Your task to perform on an android device: Add "bose soundlink" to the cart on newegg.com, then select checkout. Image 0: 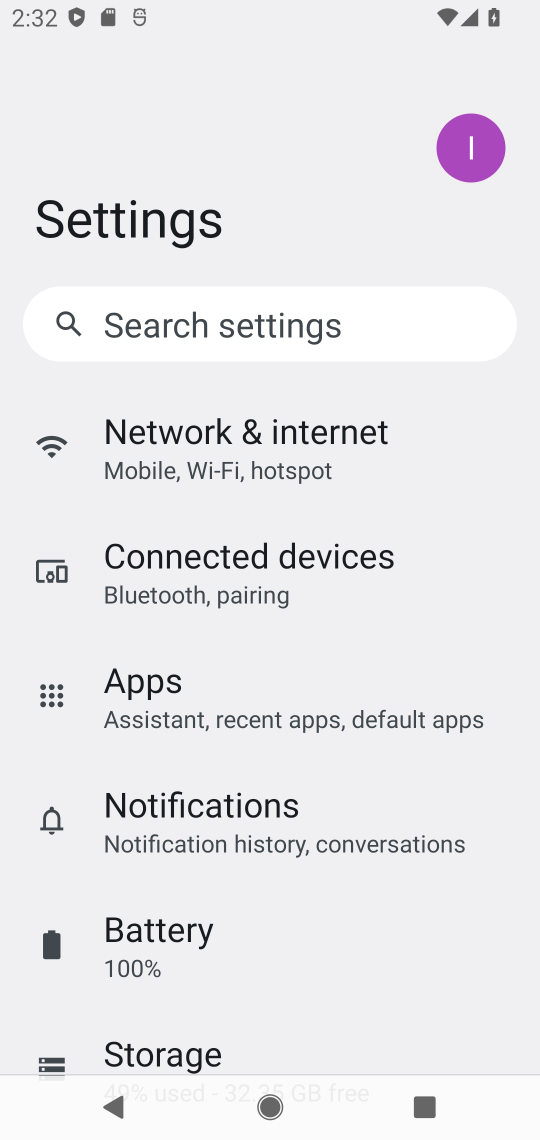
Step 0: press home button
Your task to perform on an android device: Add "bose soundlink" to the cart on newegg.com, then select checkout. Image 1: 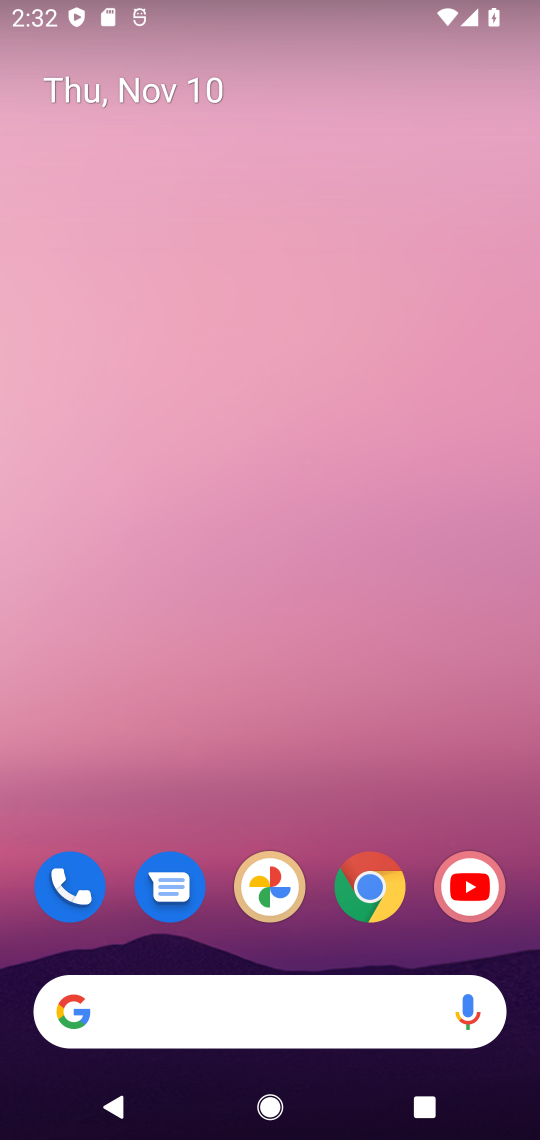
Step 1: drag from (309, 939) to (301, 94)
Your task to perform on an android device: Add "bose soundlink" to the cart on newegg.com, then select checkout. Image 2: 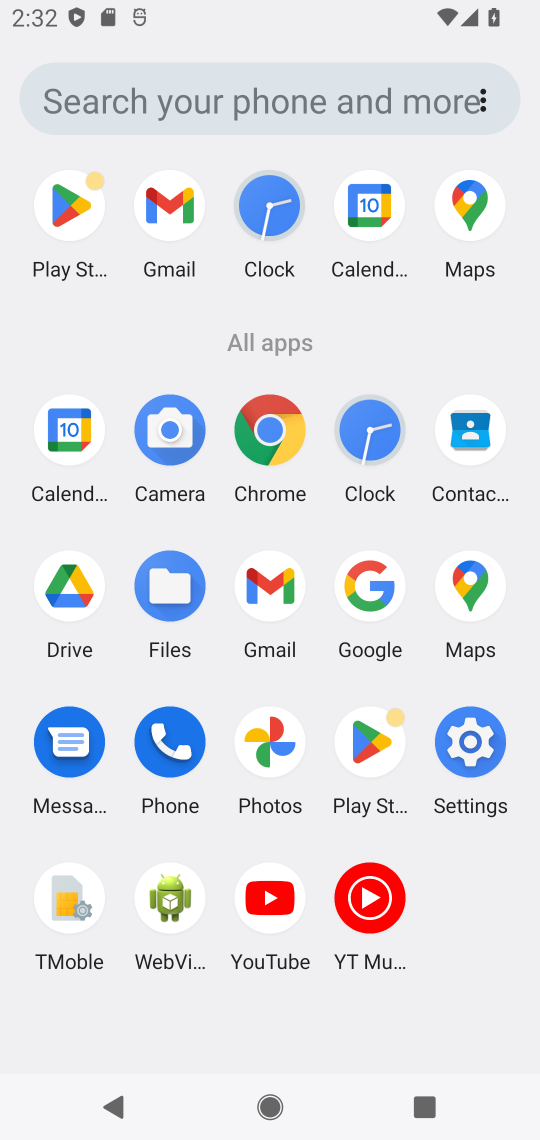
Step 2: click (273, 424)
Your task to perform on an android device: Add "bose soundlink" to the cart on newegg.com, then select checkout. Image 3: 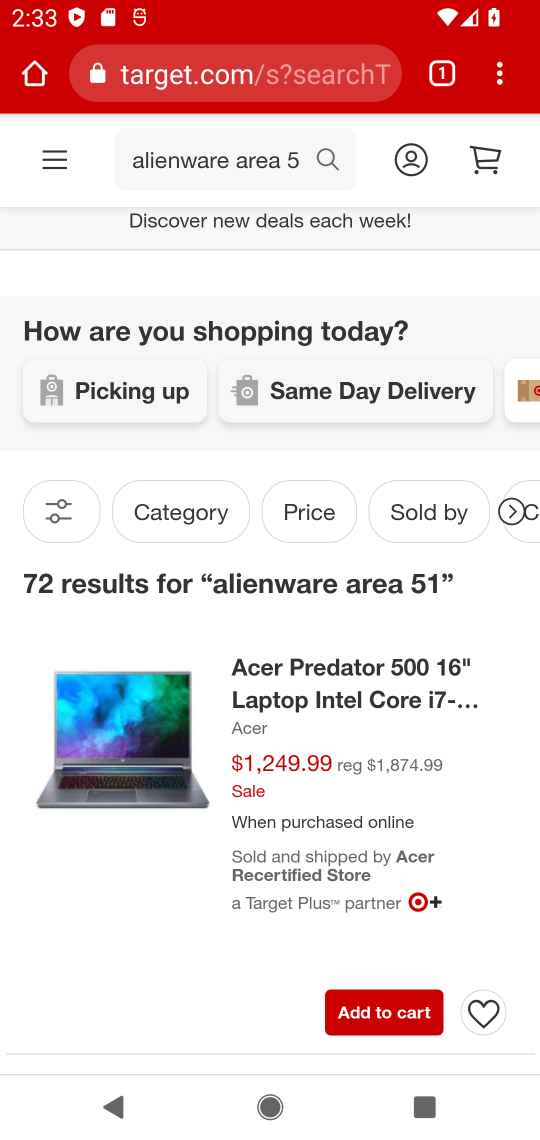
Step 3: click (236, 71)
Your task to perform on an android device: Add "bose soundlink" to the cart on newegg.com, then select checkout. Image 4: 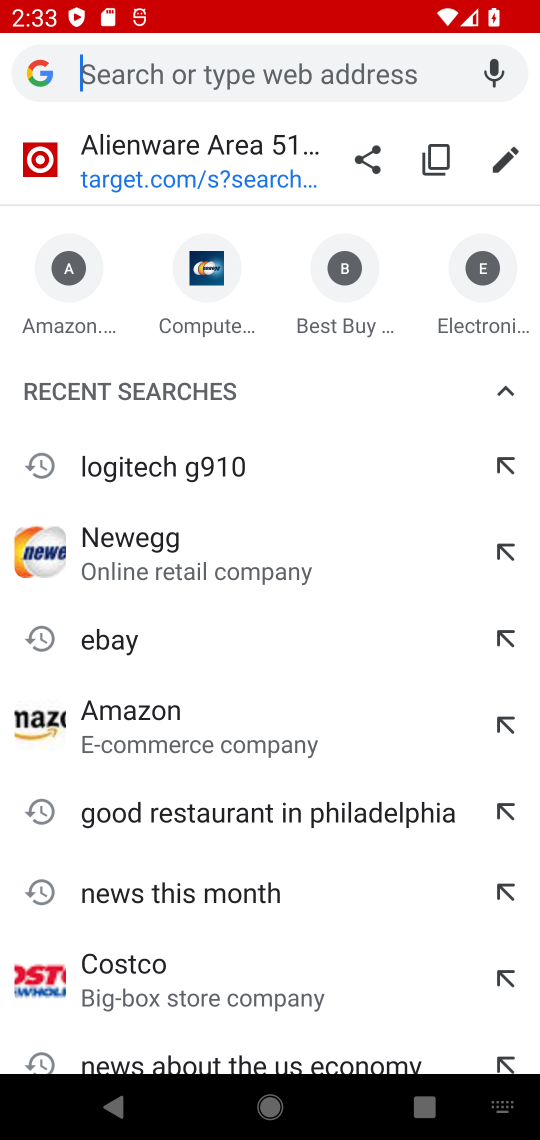
Step 4: type "newegg.com"
Your task to perform on an android device: Add "bose soundlink" to the cart on newegg.com, then select checkout. Image 5: 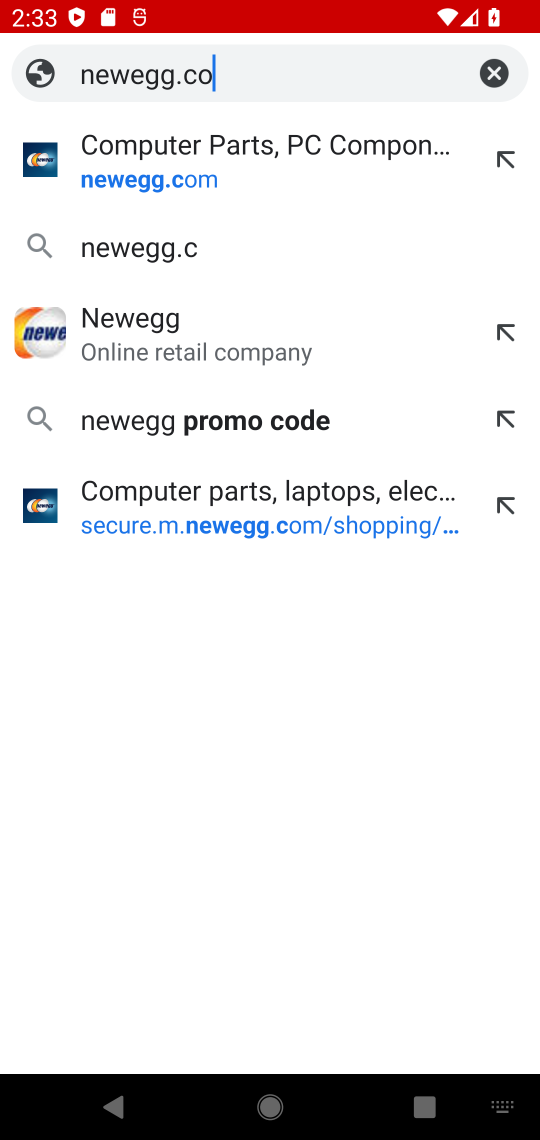
Step 5: press enter
Your task to perform on an android device: Add "bose soundlink" to the cart on newegg.com, then select checkout. Image 6: 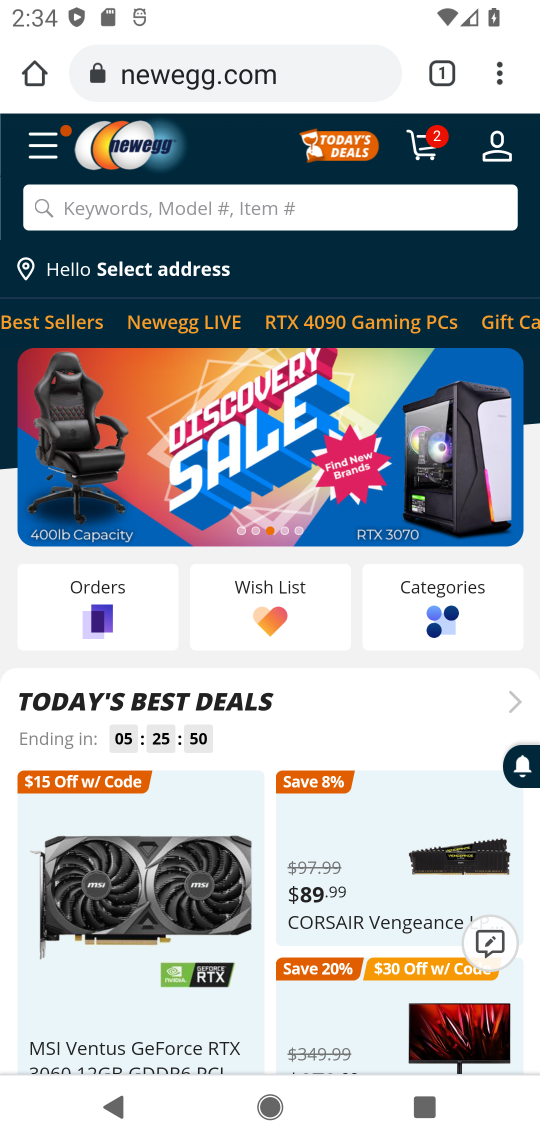
Step 6: click (332, 202)
Your task to perform on an android device: Add "bose soundlink" to the cart on newegg.com, then select checkout. Image 7: 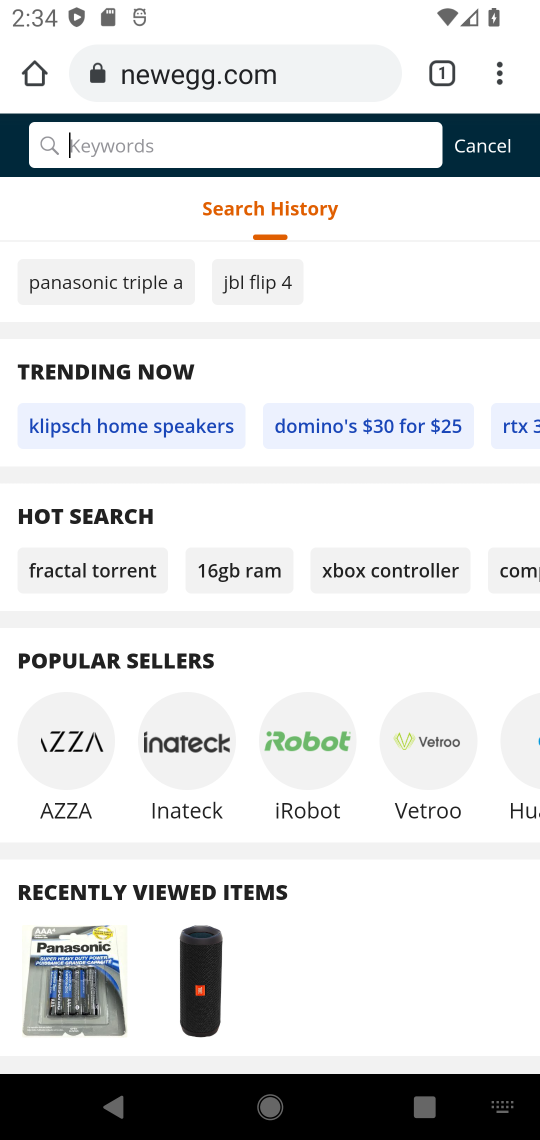
Step 7: type "bose soundlink"
Your task to perform on an android device: Add "bose soundlink" to the cart on newegg.com, then select checkout. Image 8: 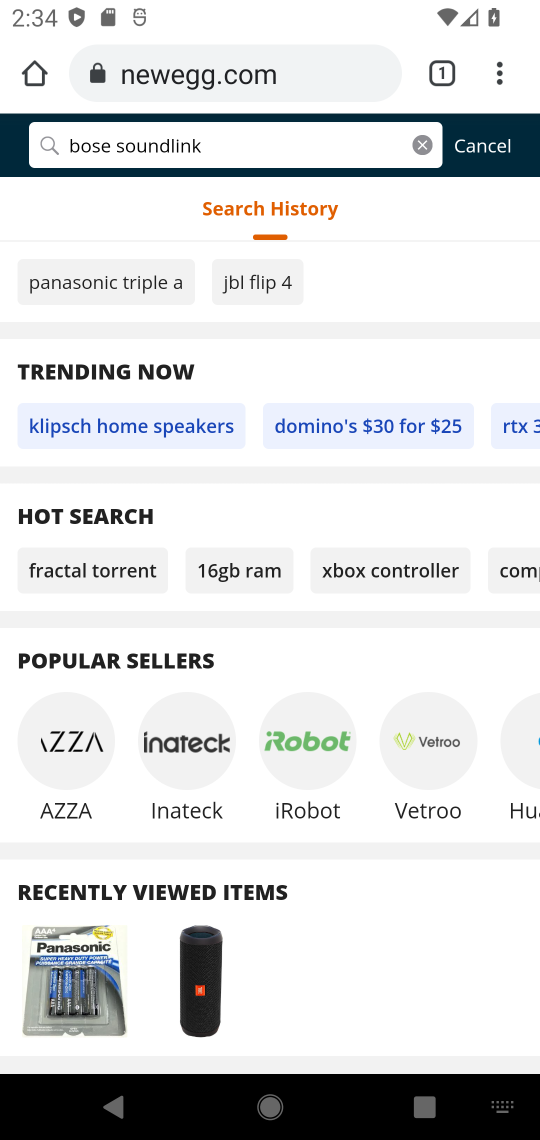
Step 8: press enter
Your task to perform on an android device: Add "bose soundlink" to the cart on newegg.com, then select checkout. Image 9: 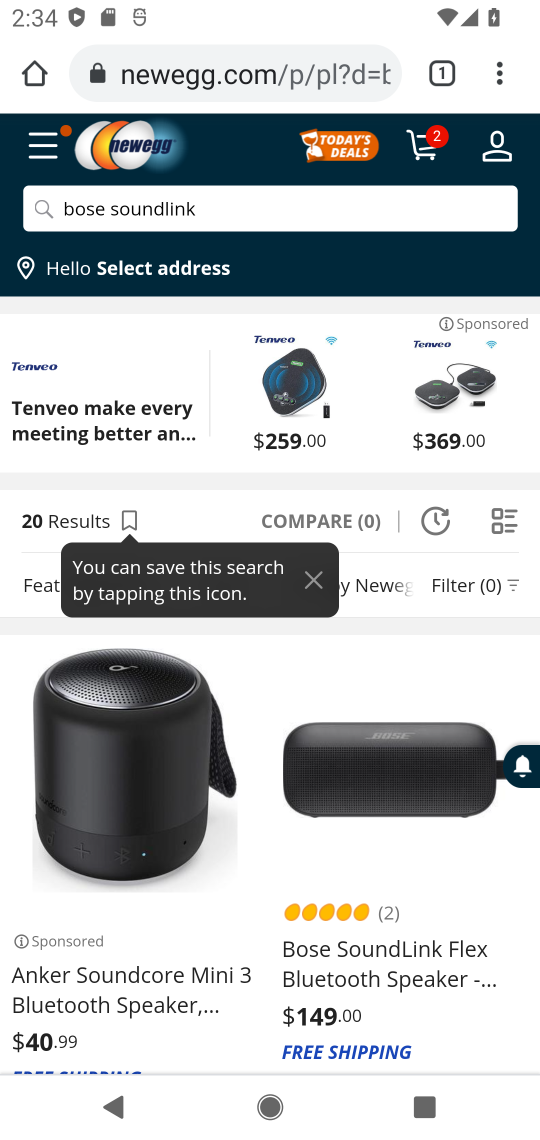
Step 9: drag from (241, 999) to (240, 548)
Your task to perform on an android device: Add "bose soundlink" to the cart on newegg.com, then select checkout. Image 10: 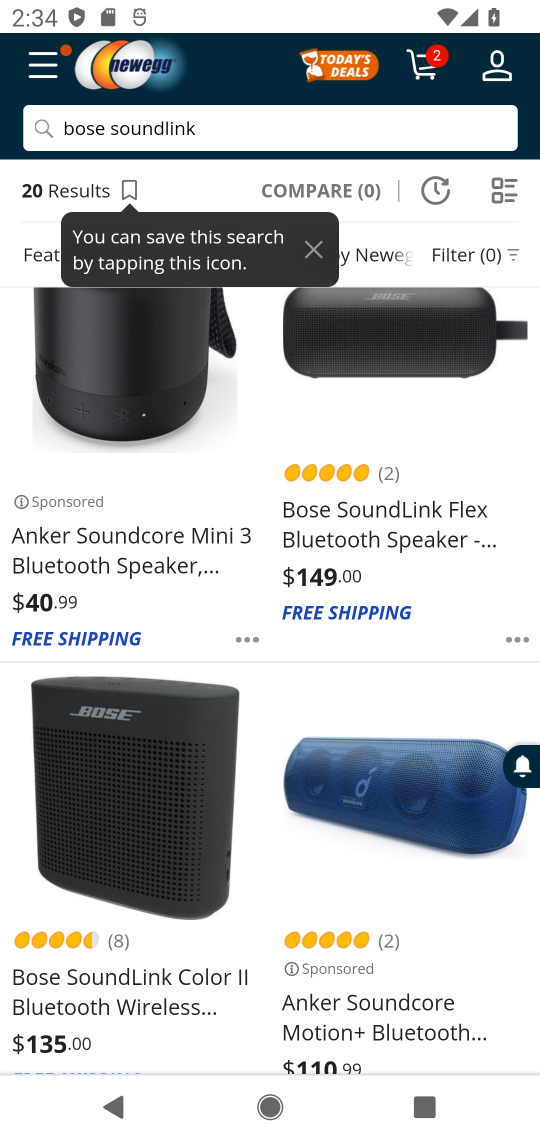
Step 10: click (388, 505)
Your task to perform on an android device: Add "bose soundlink" to the cart on newegg.com, then select checkout. Image 11: 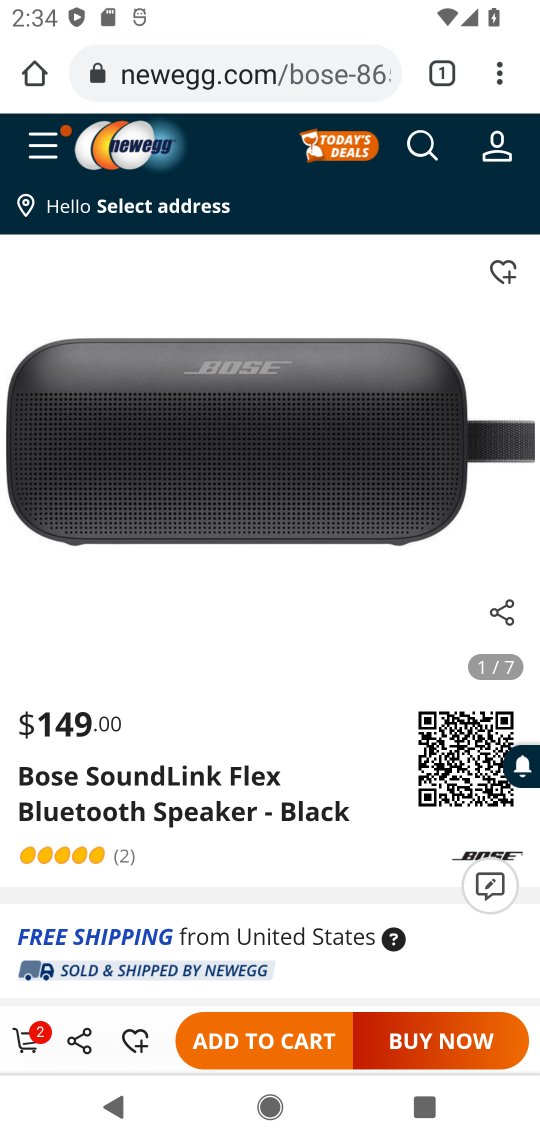
Step 11: click (285, 1043)
Your task to perform on an android device: Add "bose soundlink" to the cart on newegg.com, then select checkout. Image 12: 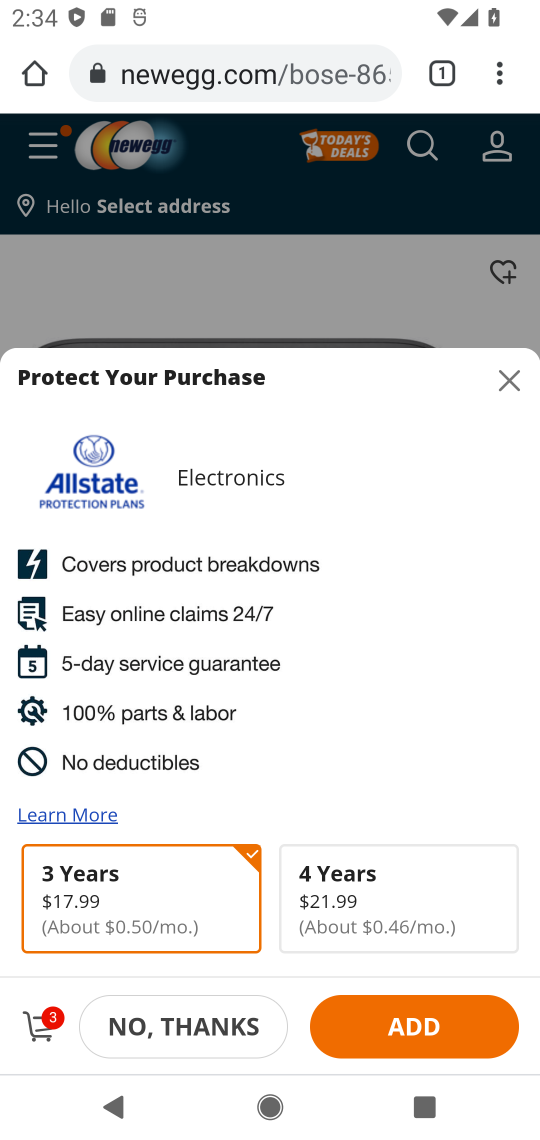
Step 12: click (27, 1017)
Your task to perform on an android device: Add "bose soundlink" to the cart on newegg.com, then select checkout. Image 13: 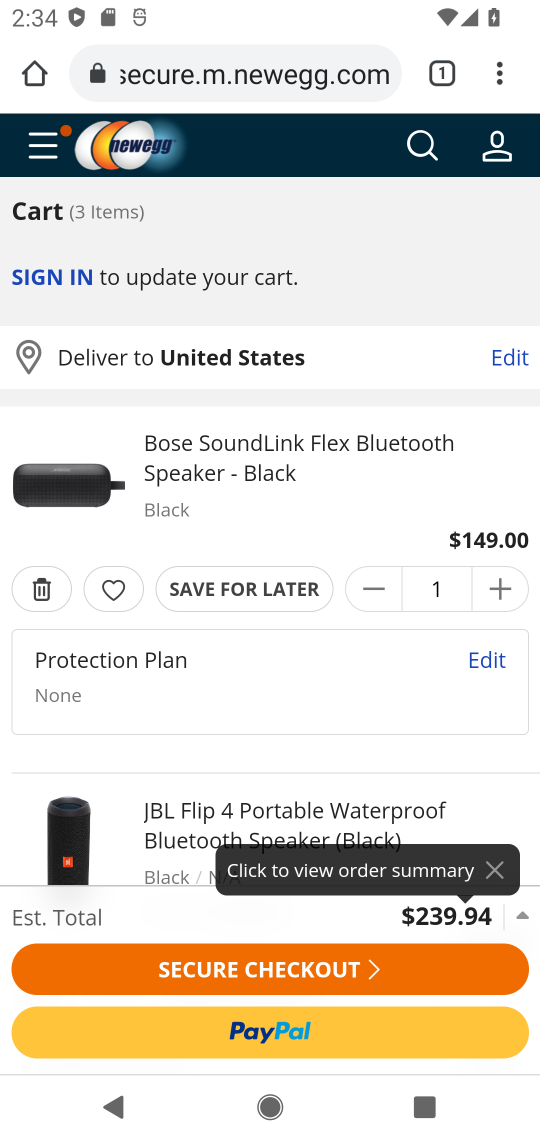
Step 13: click (301, 976)
Your task to perform on an android device: Add "bose soundlink" to the cart on newegg.com, then select checkout. Image 14: 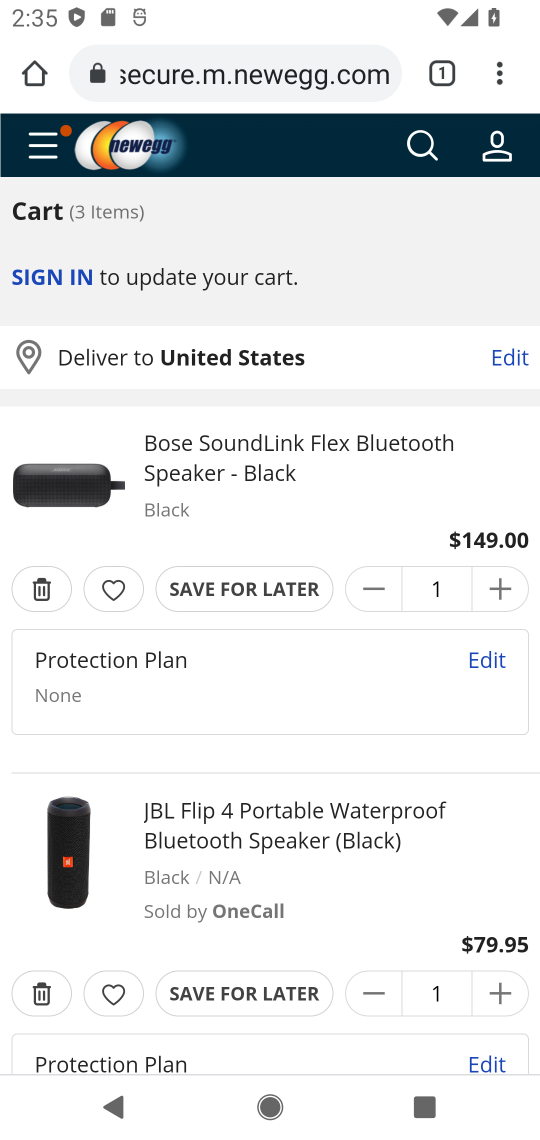
Step 14: click (301, 976)
Your task to perform on an android device: Add "bose soundlink" to the cart on newegg.com, then select checkout. Image 15: 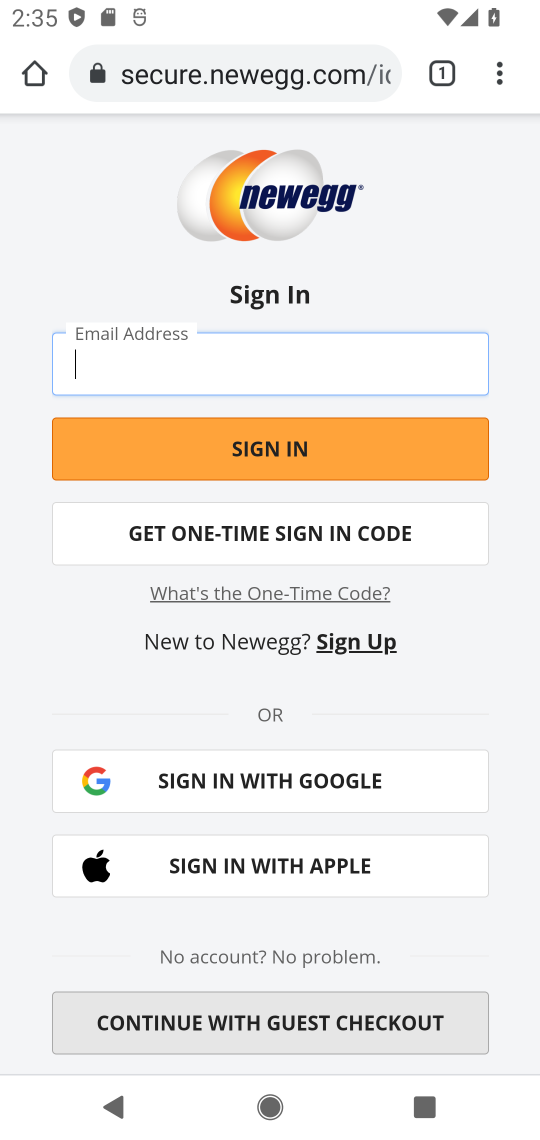
Step 15: task complete